Your task to perform on an android device: Search for sushi restaurants on Maps Image 0: 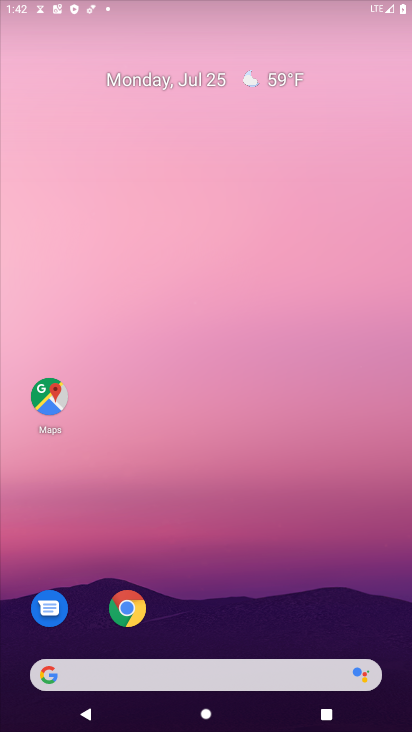
Step 0: drag from (405, 487) to (121, 160)
Your task to perform on an android device: Search for sushi restaurants on Maps Image 1: 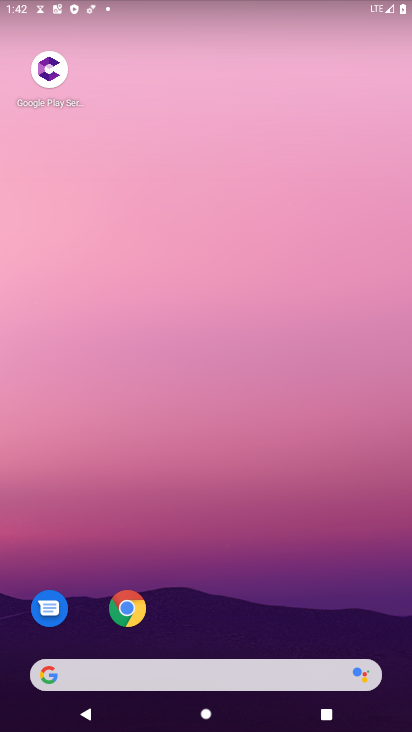
Step 1: drag from (245, 523) to (170, 26)
Your task to perform on an android device: Search for sushi restaurants on Maps Image 2: 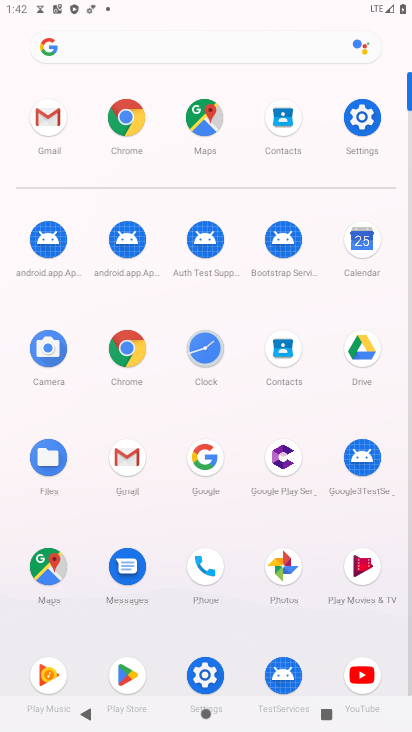
Step 2: click (55, 568)
Your task to perform on an android device: Search for sushi restaurants on Maps Image 3: 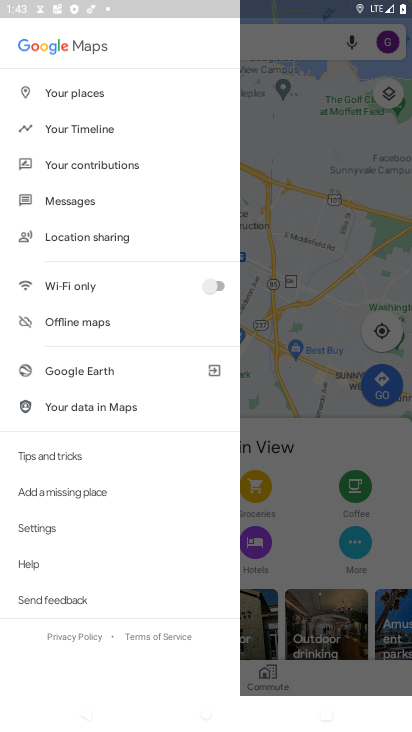
Step 3: click (307, 181)
Your task to perform on an android device: Search for sushi restaurants on Maps Image 4: 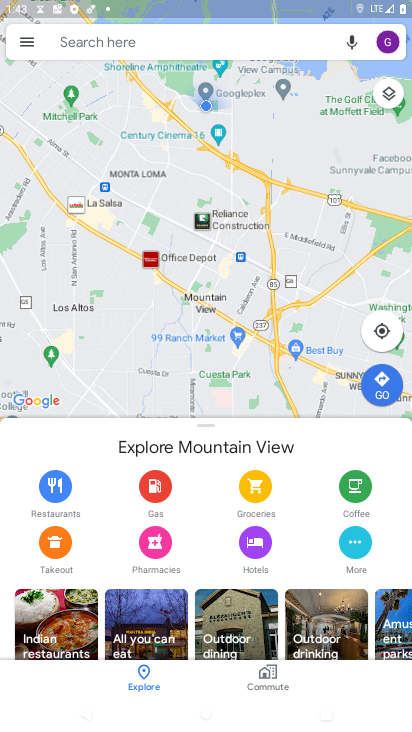
Step 4: click (190, 39)
Your task to perform on an android device: Search for sushi restaurants on Maps Image 5: 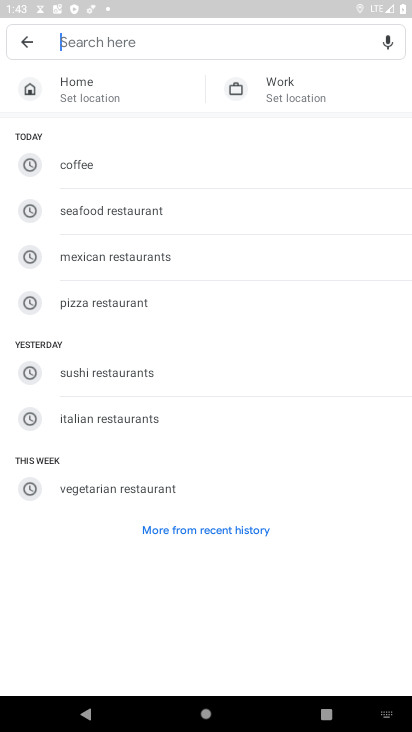
Step 5: click (175, 387)
Your task to perform on an android device: Search for sushi restaurants on Maps Image 6: 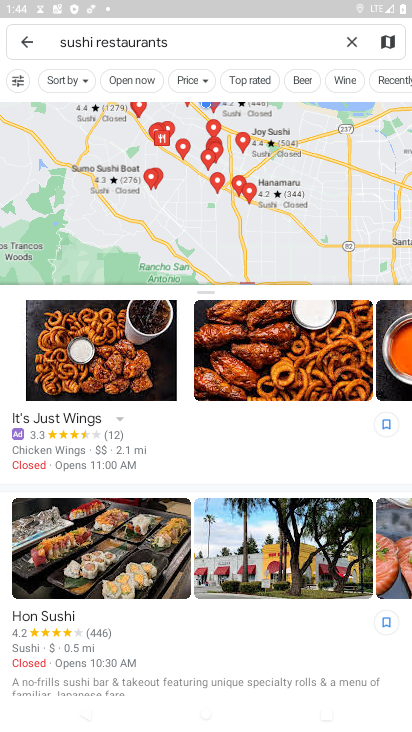
Step 6: task complete